Your task to perform on an android device: change the clock style Image 0: 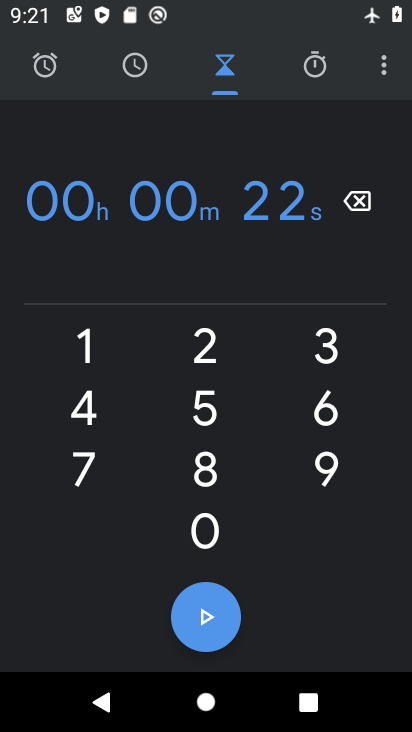
Step 0: click (374, 59)
Your task to perform on an android device: change the clock style Image 1: 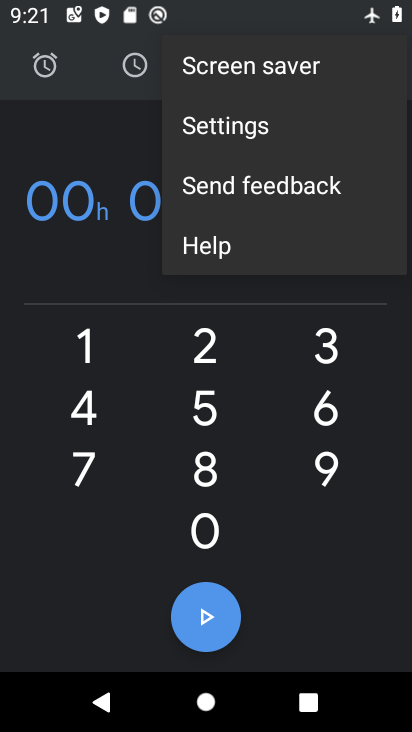
Step 1: click (254, 123)
Your task to perform on an android device: change the clock style Image 2: 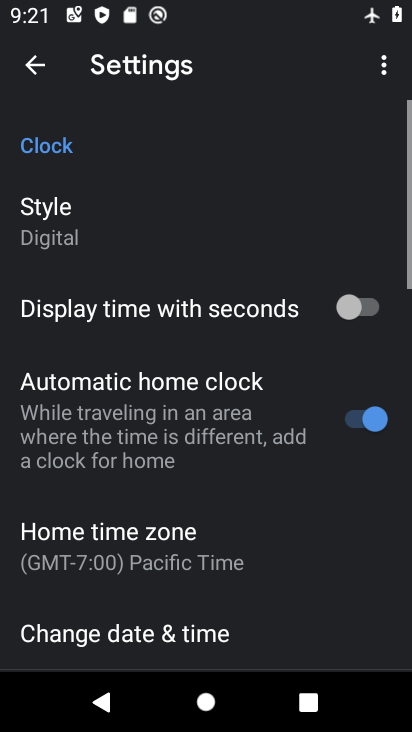
Step 2: click (84, 225)
Your task to perform on an android device: change the clock style Image 3: 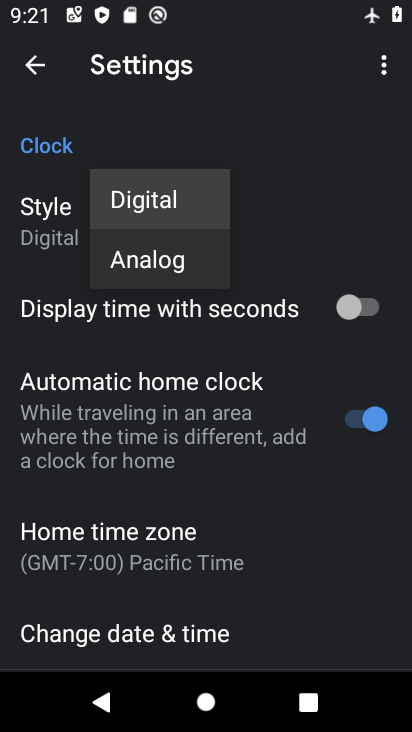
Step 3: click (135, 256)
Your task to perform on an android device: change the clock style Image 4: 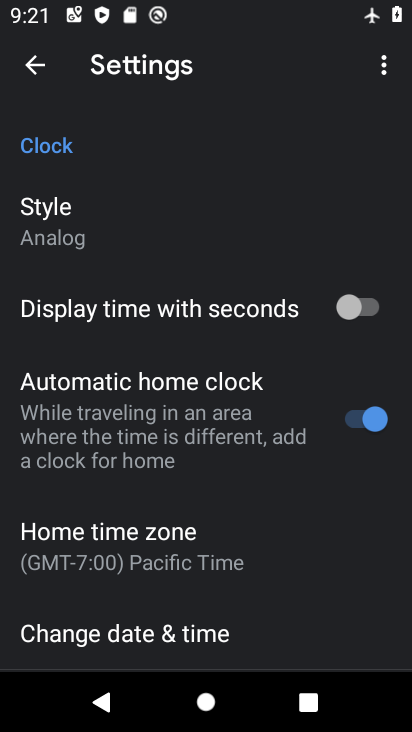
Step 4: task complete